Your task to perform on an android device: Open calendar and show me the third week of next month Image 0: 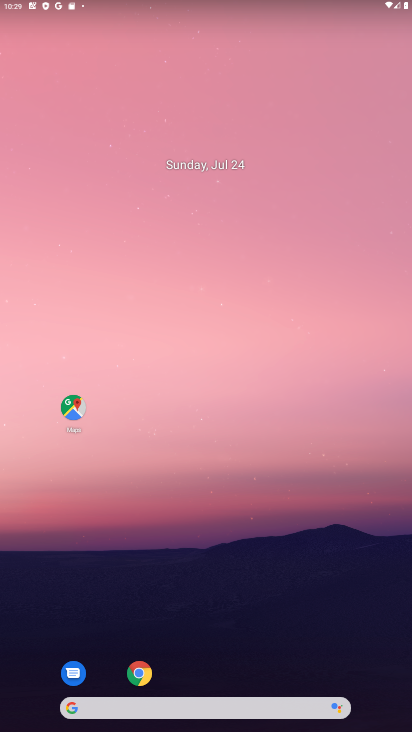
Step 0: drag from (35, 695) to (169, 181)
Your task to perform on an android device: Open calendar and show me the third week of next month Image 1: 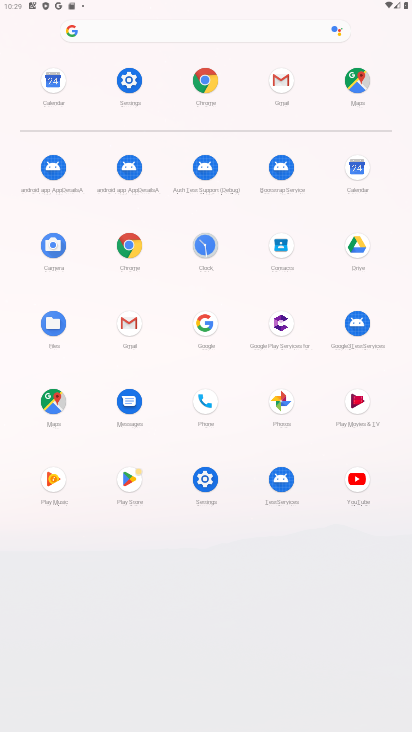
Step 1: click (368, 159)
Your task to perform on an android device: Open calendar and show me the third week of next month Image 2: 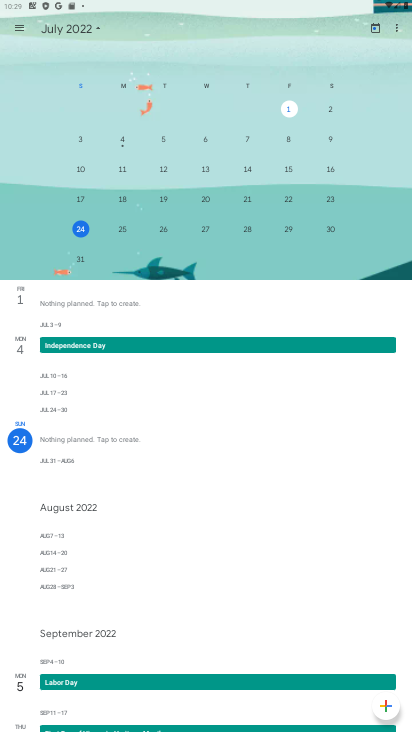
Step 2: drag from (399, 170) to (129, 152)
Your task to perform on an android device: Open calendar and show me the third week of next month Image 3: 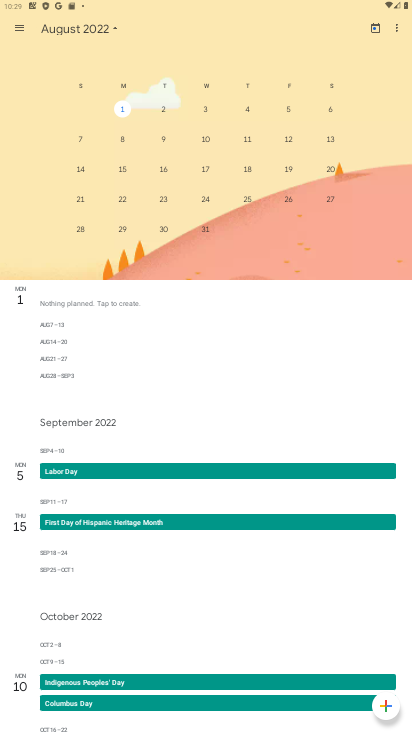
Step 3: click (121, 165)
Your task to perform on an android device: Open calendar and show me the third week of next month Image 4: 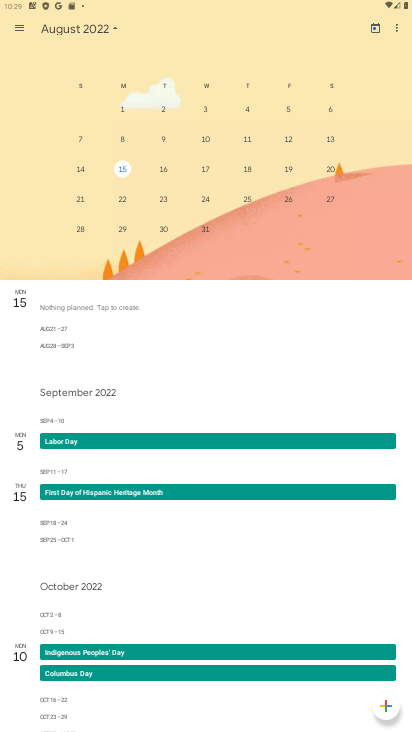
Step 4: task complete